Your task to perform on an android device: Search for sushi restaurants on Maps Image 0: 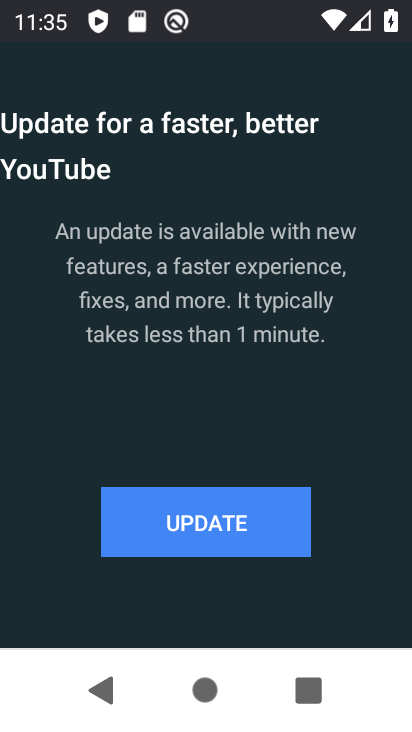
Step 0: press back button
Your task to perform on an android device: Search for sushi restaurants on Maps Image 1: 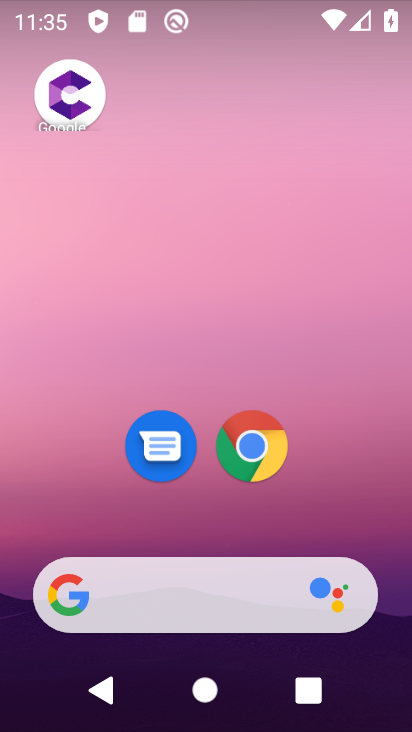
Step 1: drag from (249, 509) to (246, 201)
Your task to perform on an android device: Search for sushi restaurants on Maps Image 2: 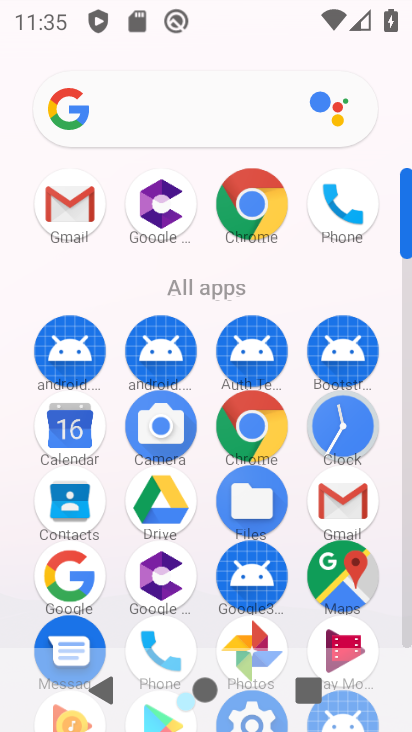
Step 2: click (351, 568)
Your task to perform on an android device: Search for sushi restaurants on Maps Image 3: 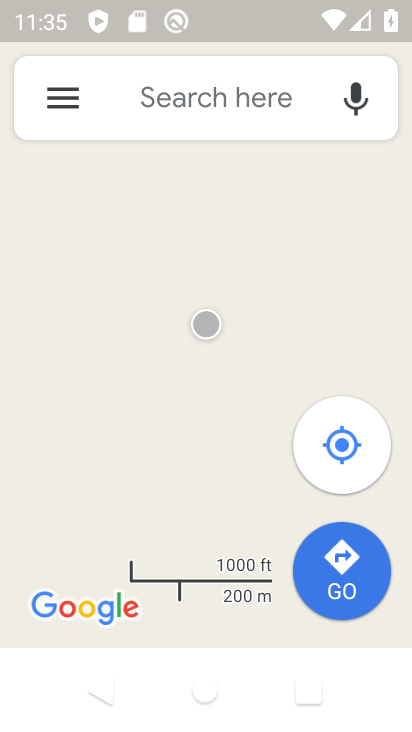
Step 3: click (182, 79)
Your task to perform on an android device: Search for sushi restaurants on Maps Image 4: 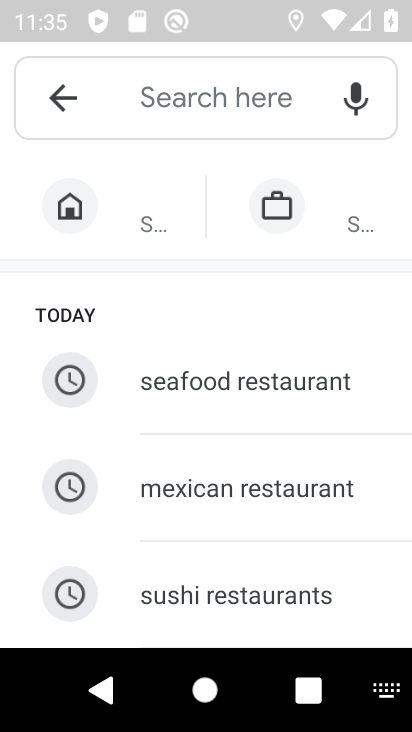
Step 4: click (210, 581)
Your task to perform on an android device: Search for sushi restaurants on Maps Image 5: 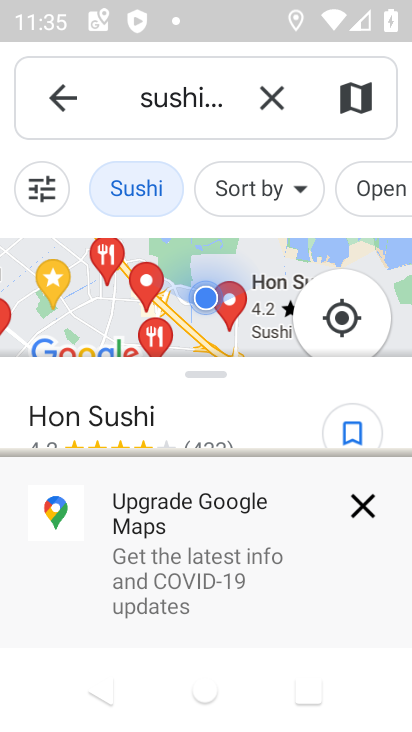
Step 5: click (356, 510)
Your task to perform on an android device: Search for sushi restaurants on Maps Image 6: 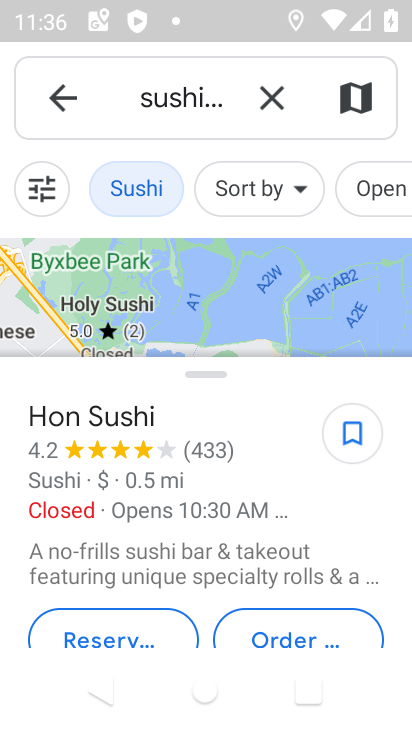
Step 6: task complete